Your task to perform on an android device: change the clock display to show seconds Image 0: 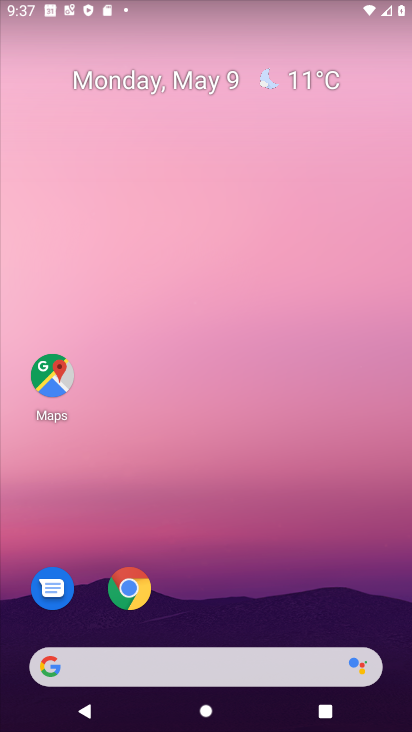
Step 0: press home button
Your task to perform on an android device: change the clock display to show seconds Image 1: 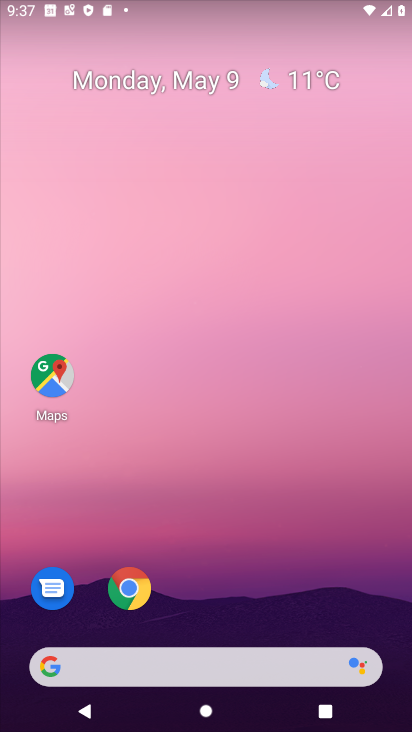
Step 1: drag from (145, 667) to (278, 196)
Your task to perform on an android device: change the clock display to show seconds Image 2: 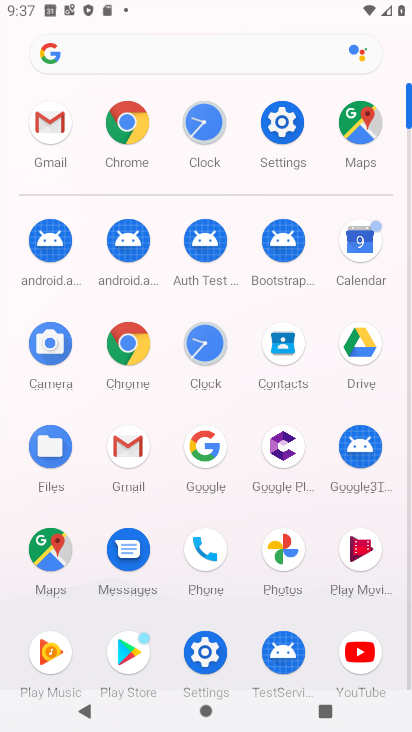
Step 2: click (208, 351)
Your task to perform on an android device: change the clock display to show seconds Image 3: 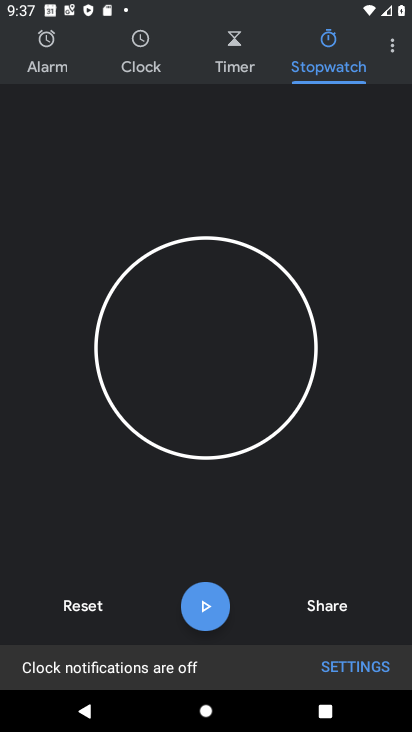
Step 3: click (390, 47)
Your task to perform on an android device: change the clock display to show seconds Image 4: 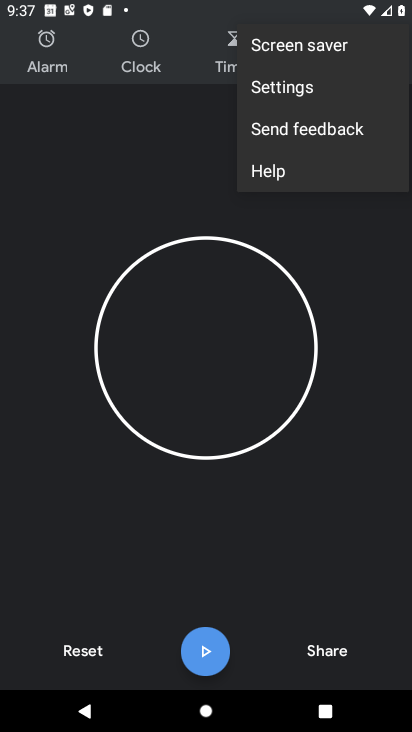
Step 4: click (289, 94)
Your task to perform on an android device: change the clock display to show seconds Image 5: 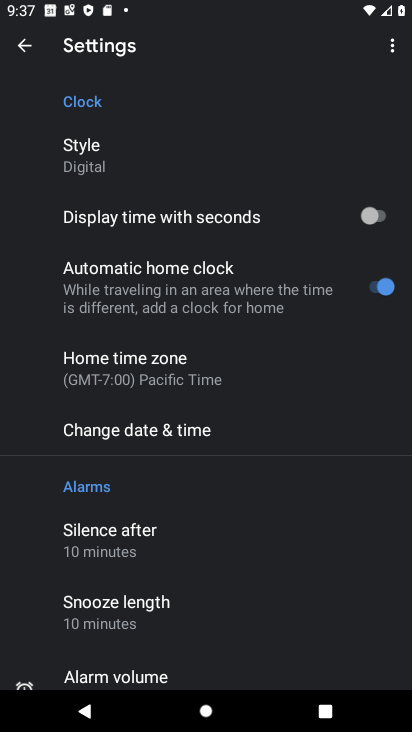
Step 5: click (377, 213)
Your task to perform on an android device: change the clock display to show seconds Image 6: 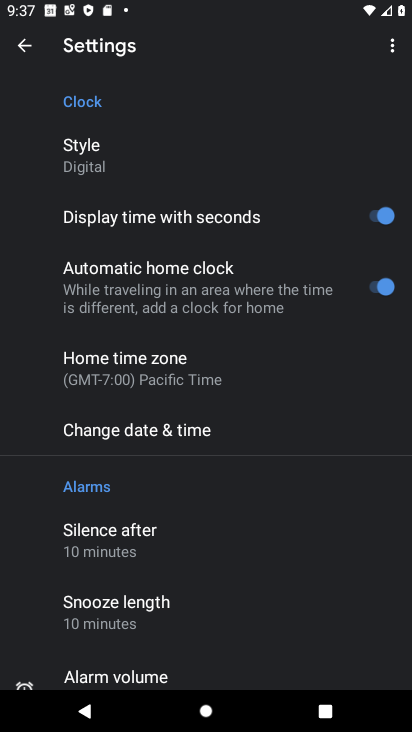
Step 6: task complete